Your task to perform on an android device: toggle notification dots Image 0: 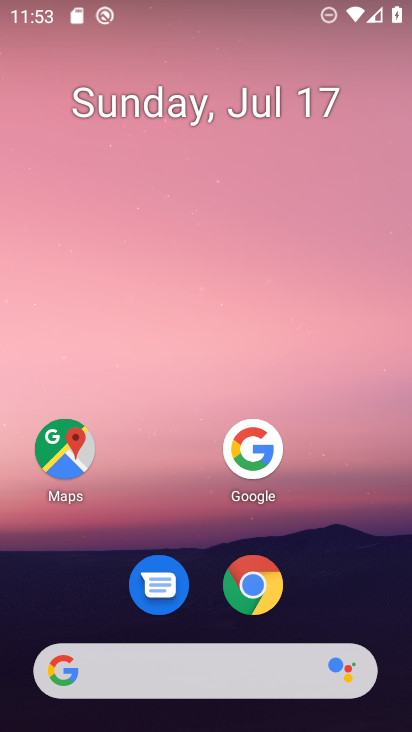
Step 0: drag from (204, 674) to (252, 92)
Your task to perform on an android device: toggle notification dots Image 1: 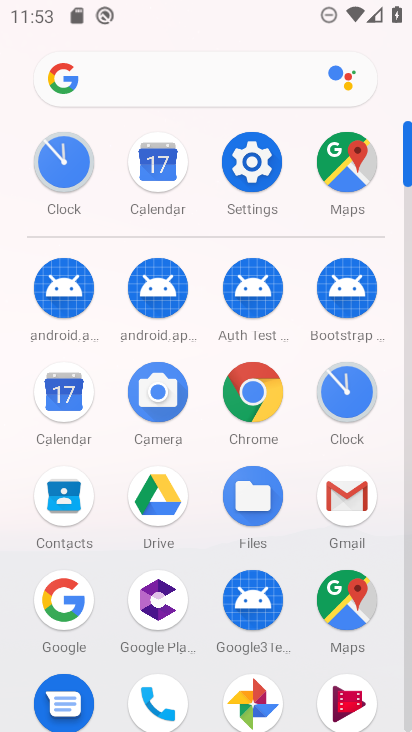
Step 1: click (249, 170)
Your task to perform on an android device: toggle notification dots Image 2: 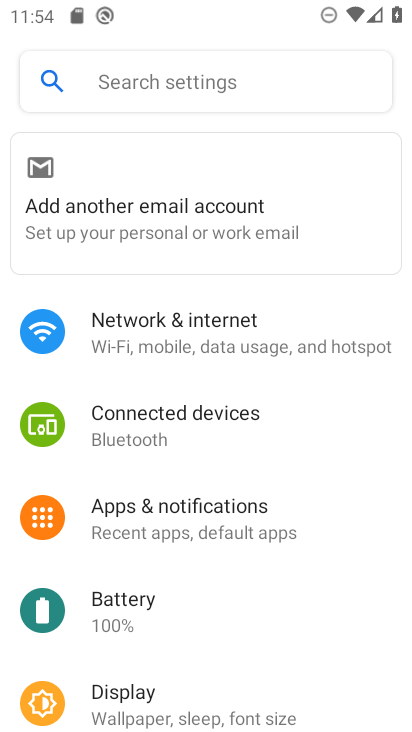
Step 2: click (203, 508)
Your task to perform on an android device: toggle notification dots Image 3: 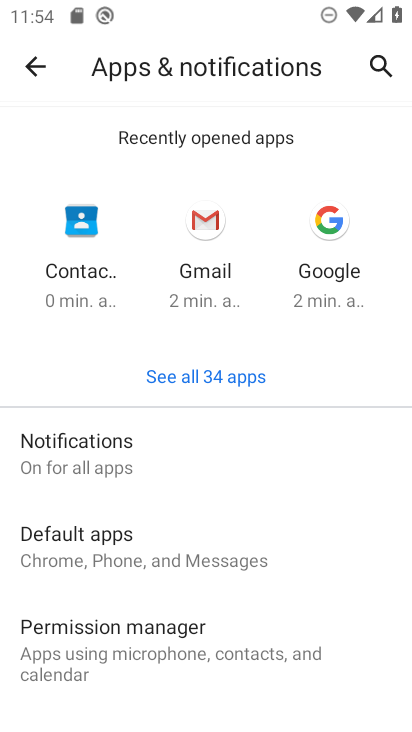
Step 3: click (94, 453)
Your task to perform on an android device: toggle notification dots Image 4: 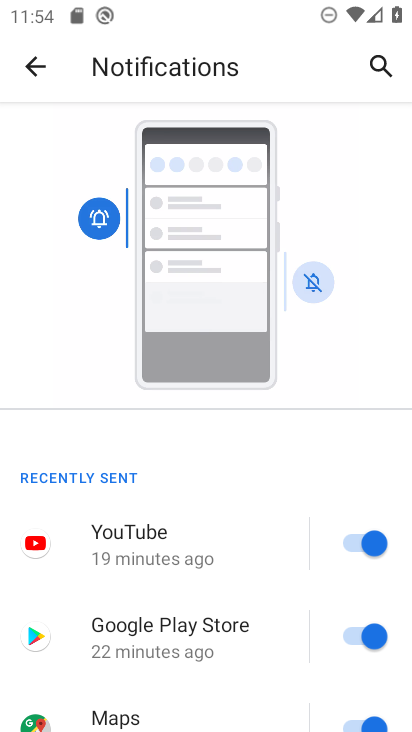
Step 4: drag from (203, 656) to (287, 95)
Your task to perform on an android device: toggle notification dots Image 5: 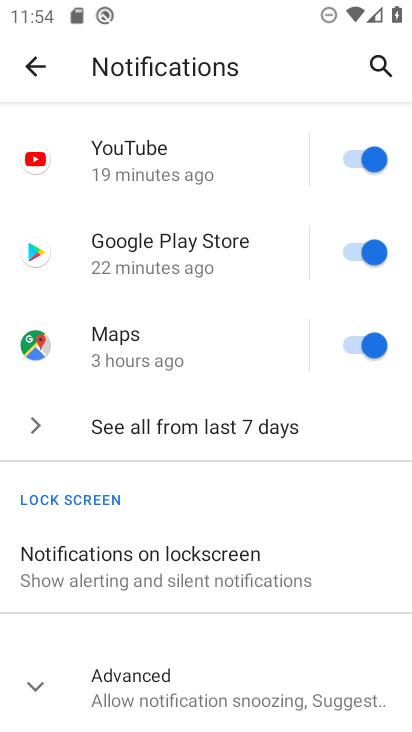
Step 5: click (147, 672)
Your task to perform on an android device: toggle notification dots Image 6: 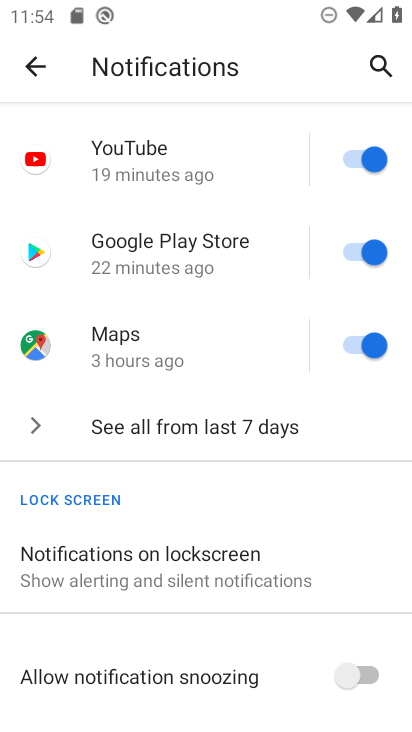
Step 6: drag from (252, 556) to (352, 55)
Your task to perform on an android device: toggle notification dots Image 7: 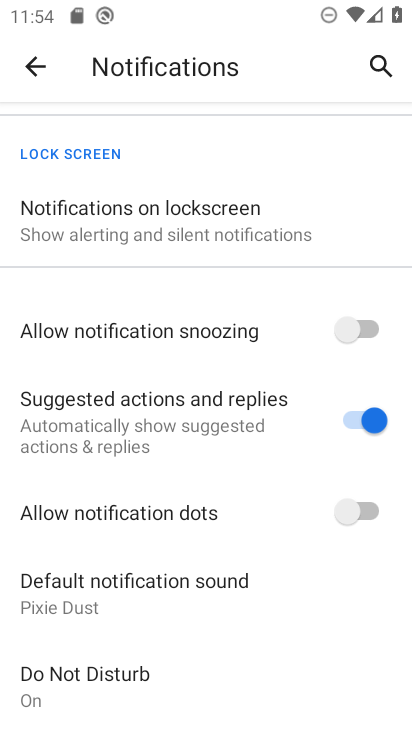
Step 7: click (365, 501)
Your task to perform on an android device: toggle notification dots Image 8: 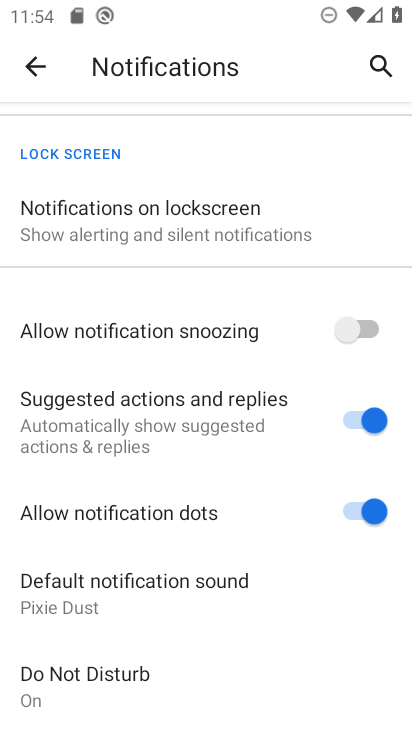
Step 8: task complete